Your task to perform on an android device: find which apps use the phone's location Image 0: 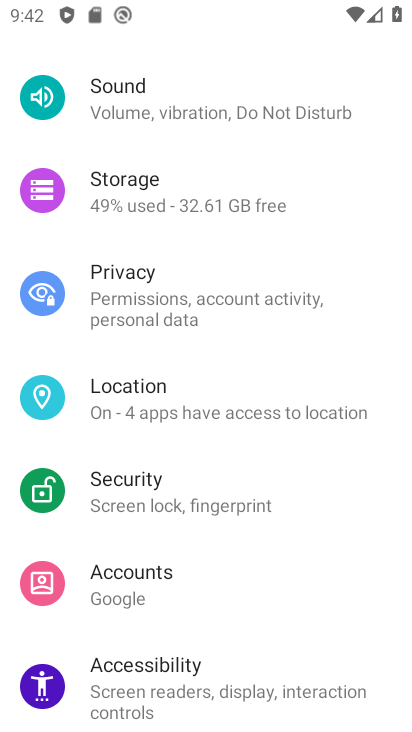
Step 0: click (183, 411)
Your task to perform on an android device: find which apps use the phone's location Image 1: 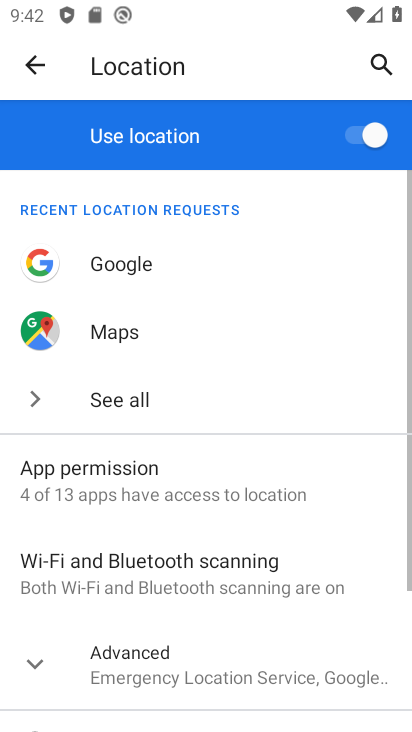
Step 1: click (111, 475)
Your task to perform on an android device: find which apps use the phone's location Image 2: 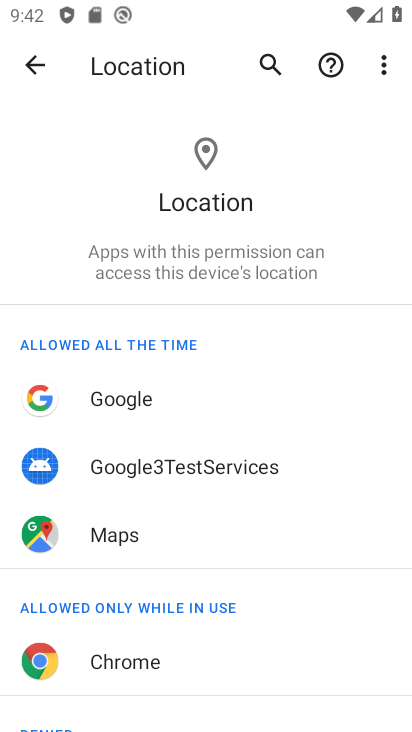
Step 2: task complete